Your task to perform on an android device: set default search engine in the chrome app Image 0: 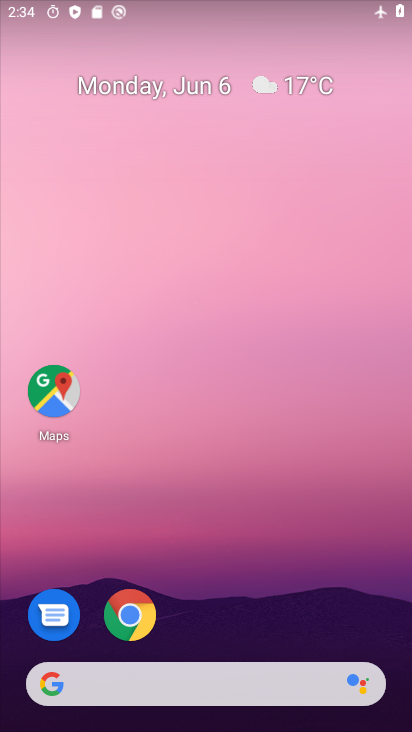
Step 0: click (138, 613)
Your task to perform on an android device: set default search engine in the chrome app Image 1: 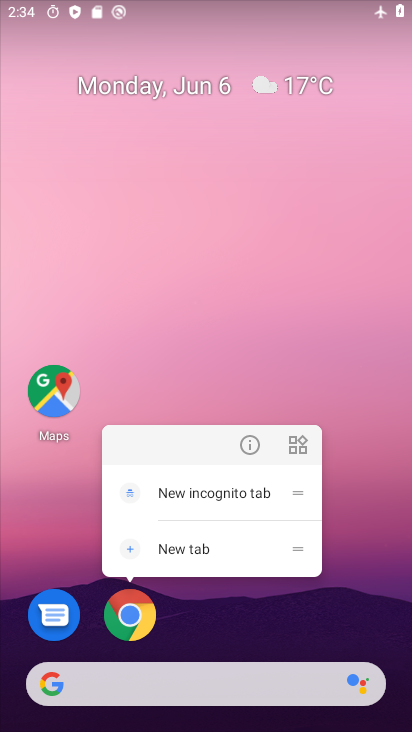
Step 1: click (138, 613)
Your task to perform on an android device: set default search engine in the chrome app Image 2: 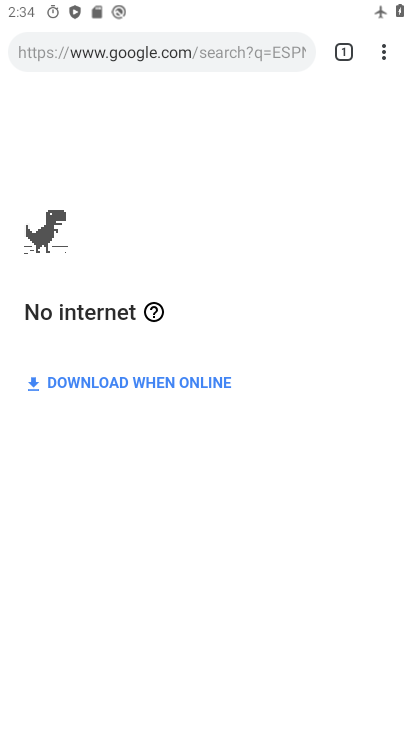
Step 2: click (391, 47)
Your task to perform on an android device: set default search engine in the chrome app Image 3: 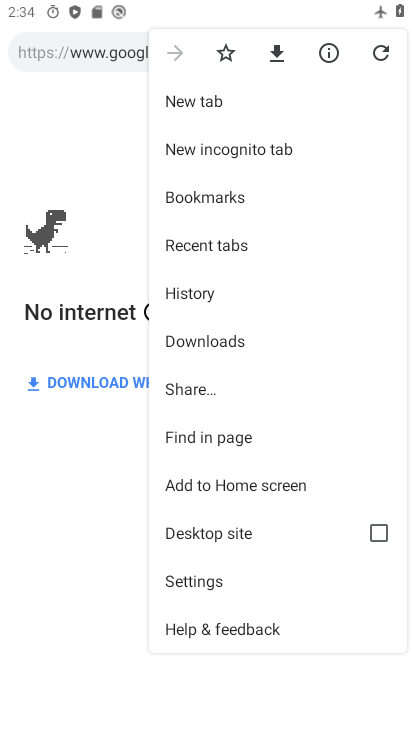
Step 3: click (206, 586)
Your task to perform on an android device: set default search engine in the chrome app Image 4: 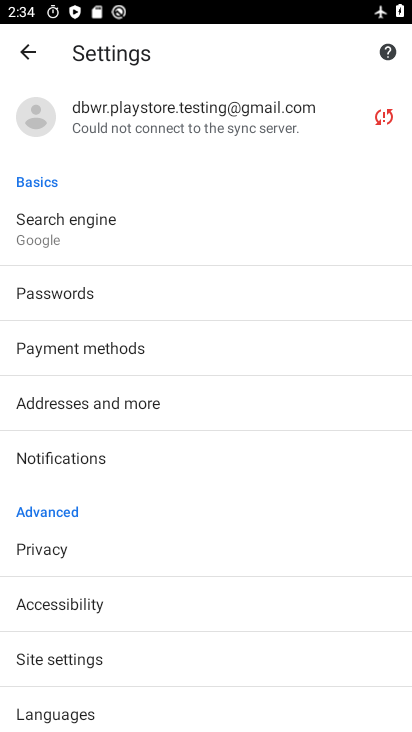
Step 4: click (86, 235)
Your task to perform on an android device: set default search engine in the chrome app Image 5: 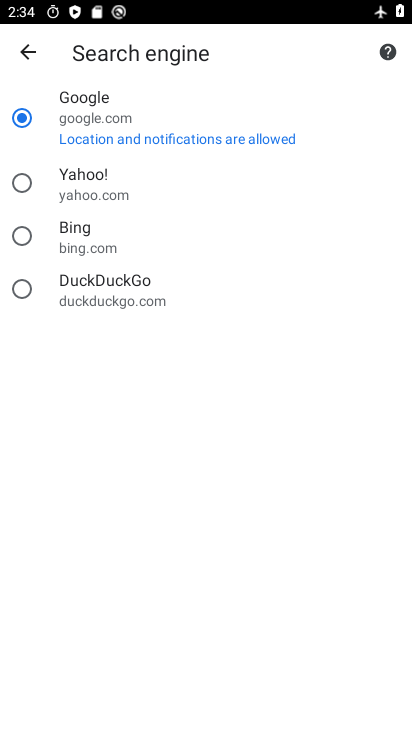
Step 5: click (129, 132)
Your task to perform on an android device: set default search engine in the chrome app Image 6: 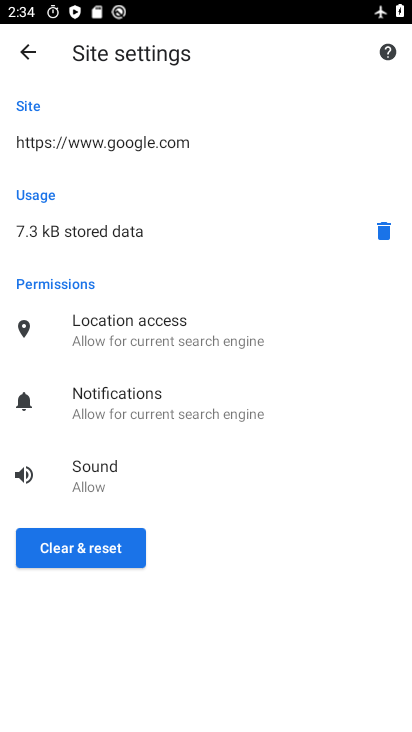
Step 6: click (87, 563)
Your task to perform on an android device: set default search engine in the chrome app Image 7: 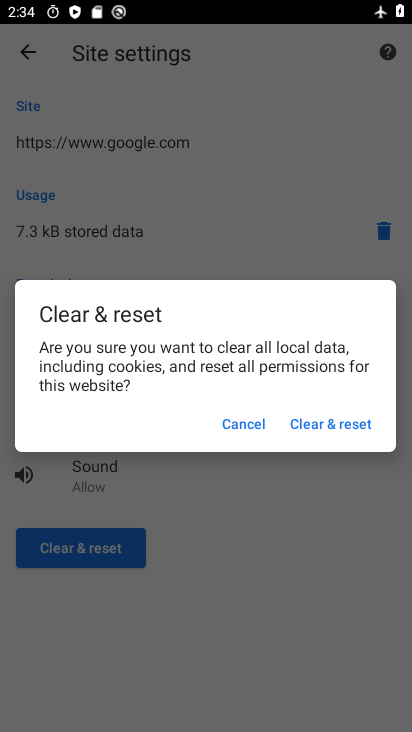
Step 7: click (333, 422)
Your task to perform on an android device: set default search engine in the chrome app Image 8: 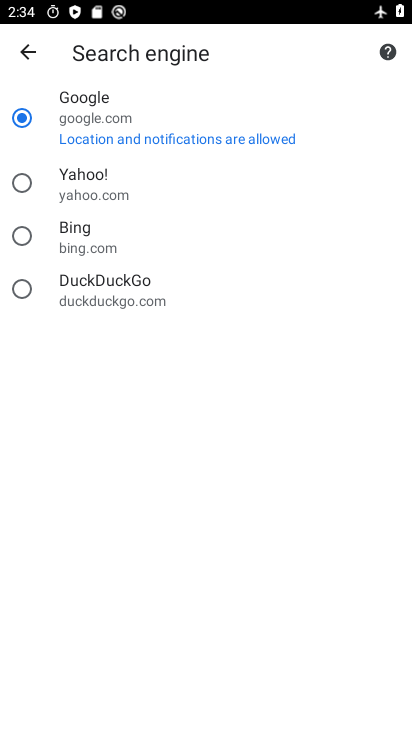
Step 8: task complete